Your task to perform on an android device: Search for "asus zenbook" on bestbuy.com, select the first entry, and add it to the cart. Image 0: 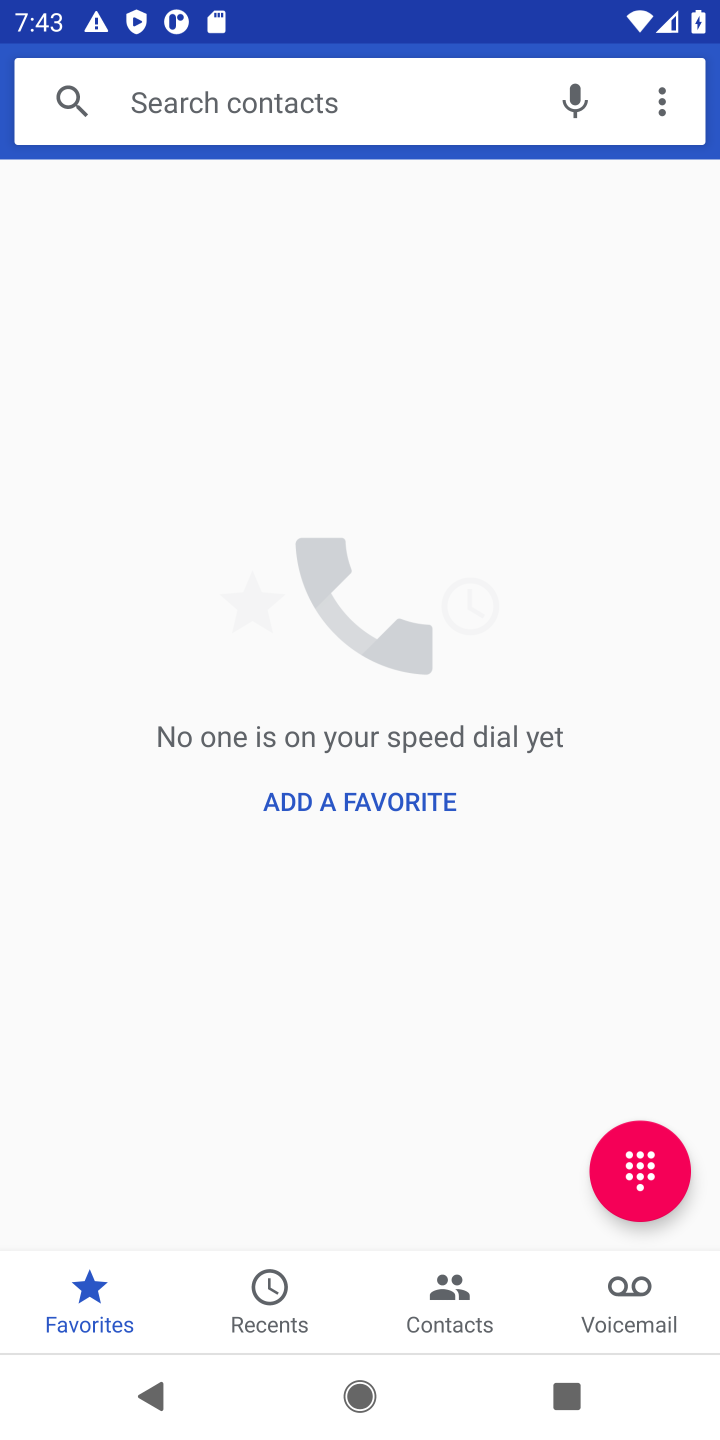
Step 0: press home button
Your task to perform on an android device: Search for "asus zenbook" on bestbuy.com, select the first entry, and add it to the cart. Image 1: 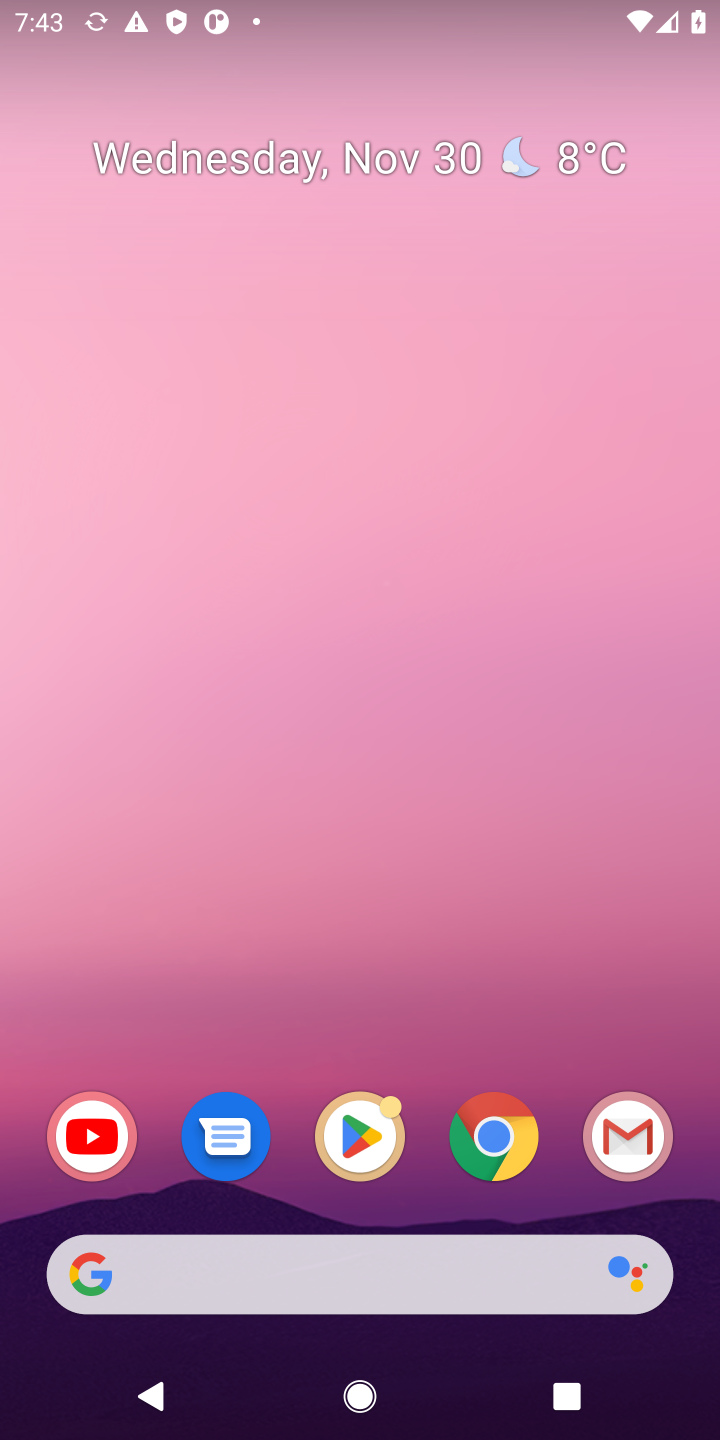
Step 1: click (488, 1144)
Your task to perform on an android device: Search for "asus zenbook" on bestbuy.com, select the first entry, and add it to the cart. Image 2: 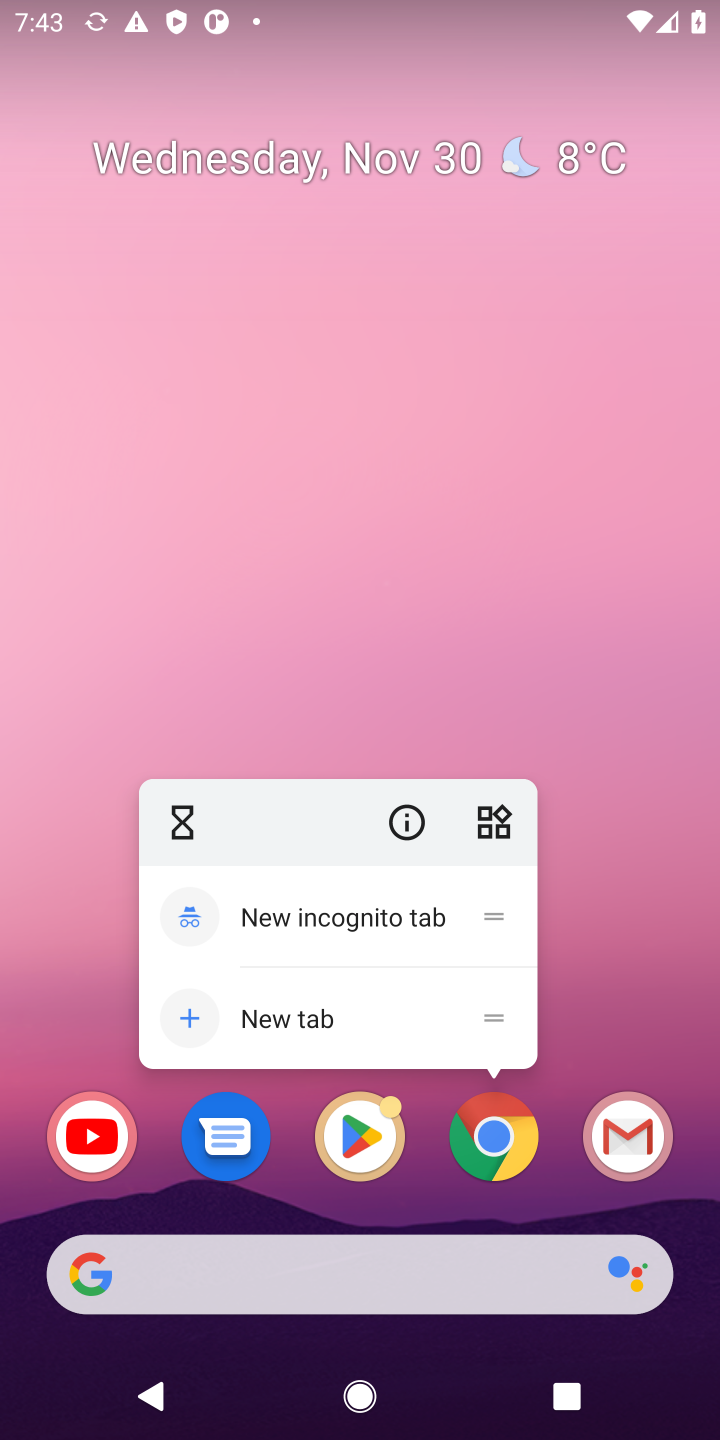
Step 2: click (488, 1144)
Your task to perform on an android device: Search for "asus zenbook" on bestbuy.com, select the first entry, and add it to the cart. Image 3: 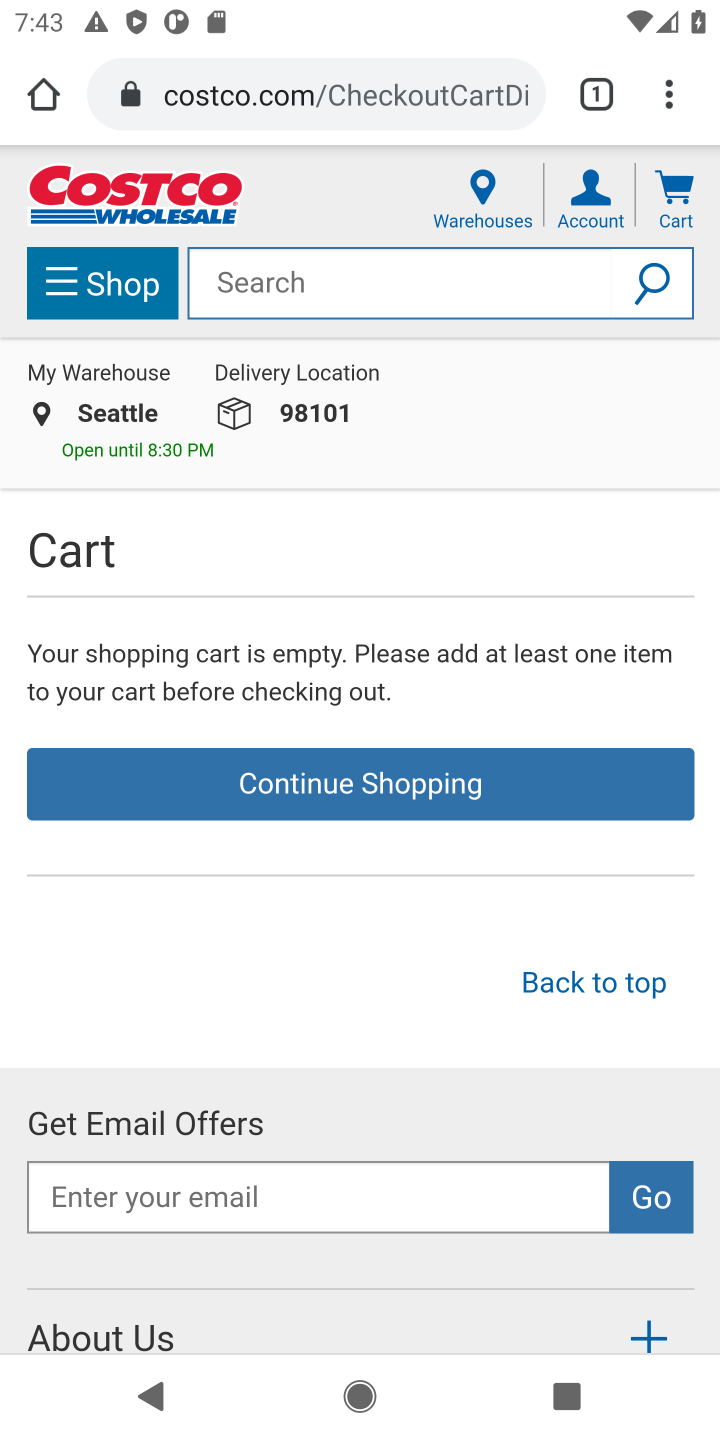
Step 3: click (351, 96)
Your task to perform on an android device: Search for "asus zenbook" on bestbuy.com, select the first entry, and add it to the cart. Image 4: 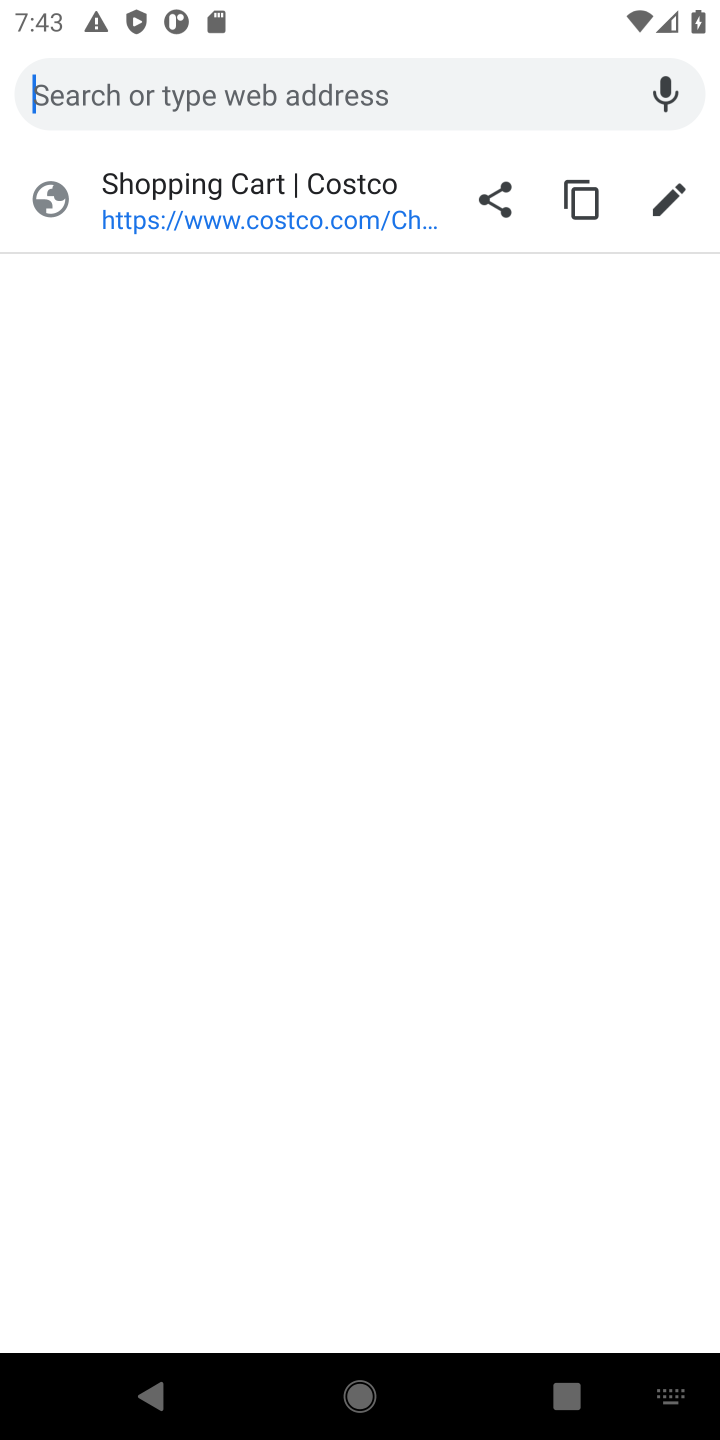
Step 4: type "bestbuy.com"
Your task to perform on an android device: Search for "asus zenbook" on bestbuy.com, select the first entry, and add it to the cart. Image 5: 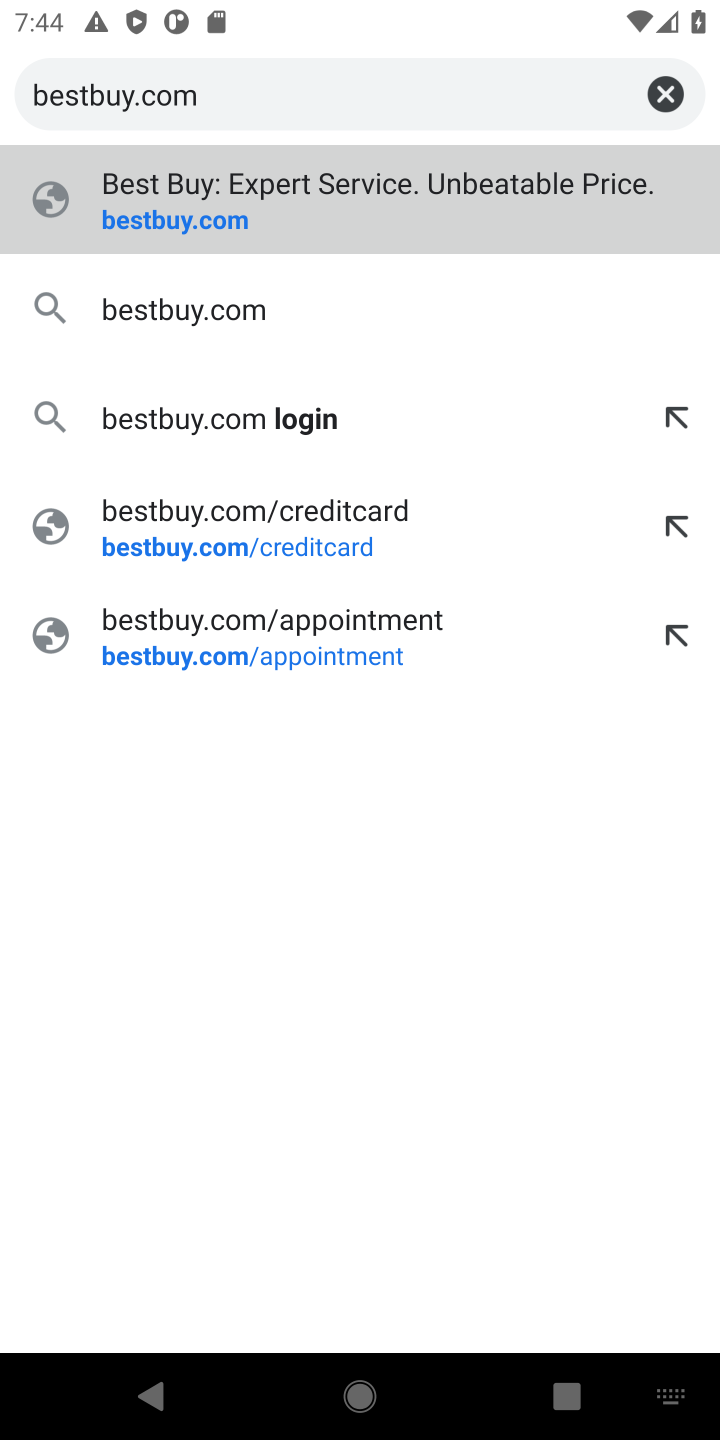
Step 5: click (175, 225)
Your task to perform on an android device: Search for "asus zenbook" on bestbuy.com, select the first entry, and add it to the cart. Image 6: 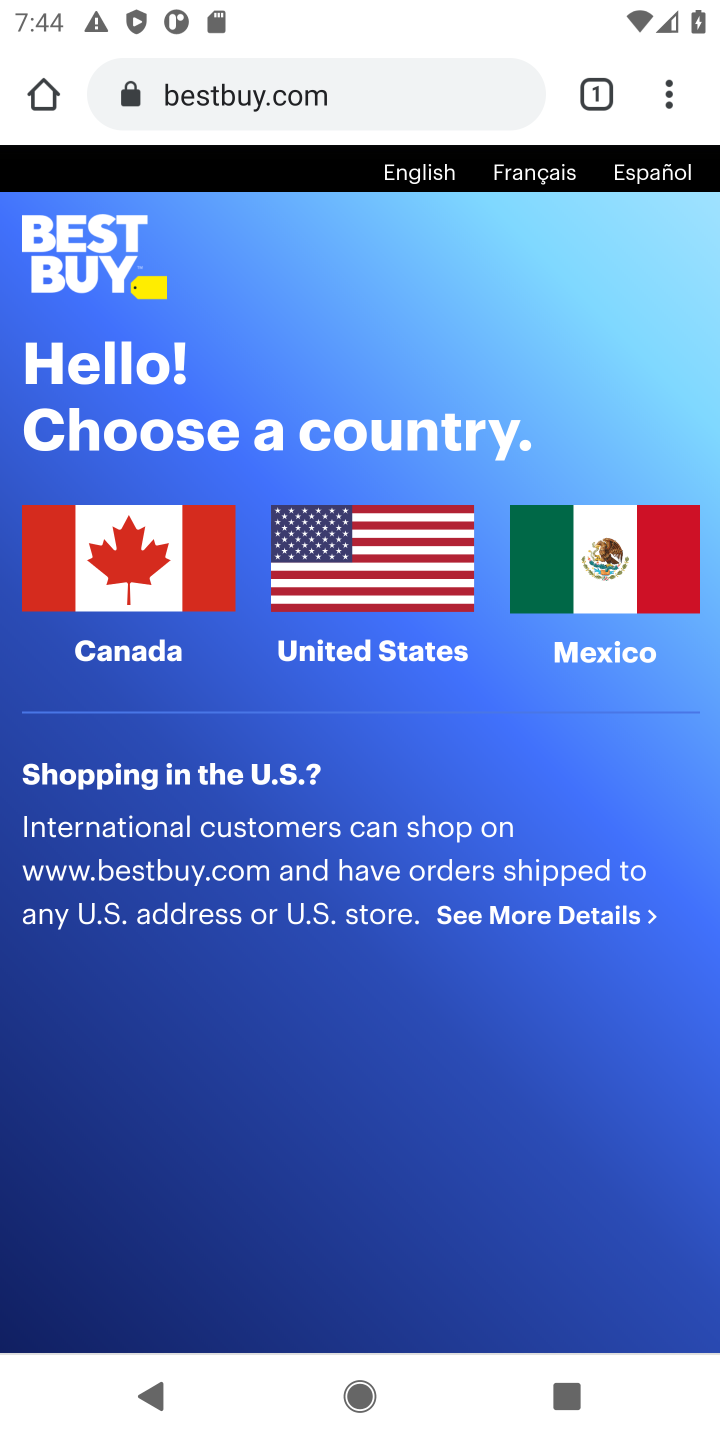
Step 6: click (352, 593)
Your task to perform on an android device: Search for "asus zenbook" on bestbuy.com, select the first entry, and add it to the cart. Image 7: 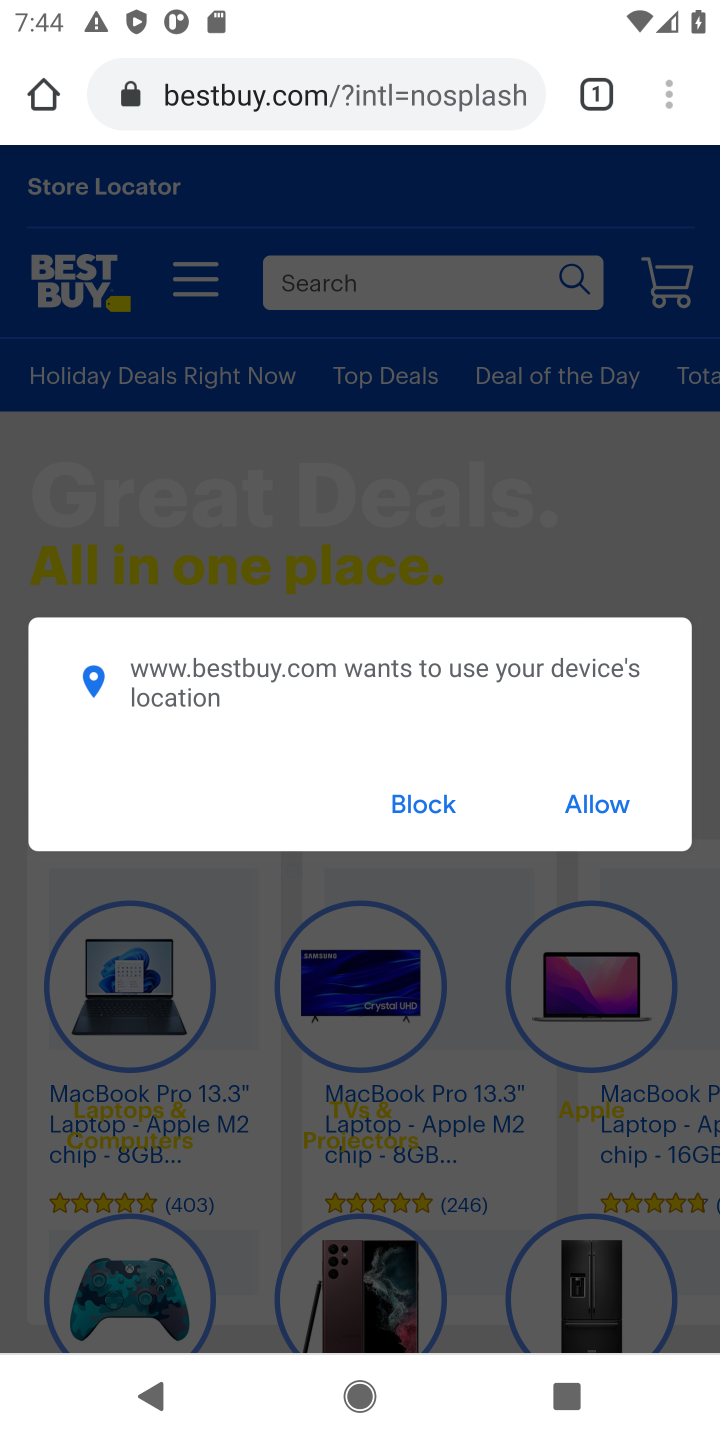
Step 7: click (422, 811)
Your task to perform on an android device: Search for "asus zenbook" on bestbuy.com, select the first entry, and add it to the cart. Image 8: 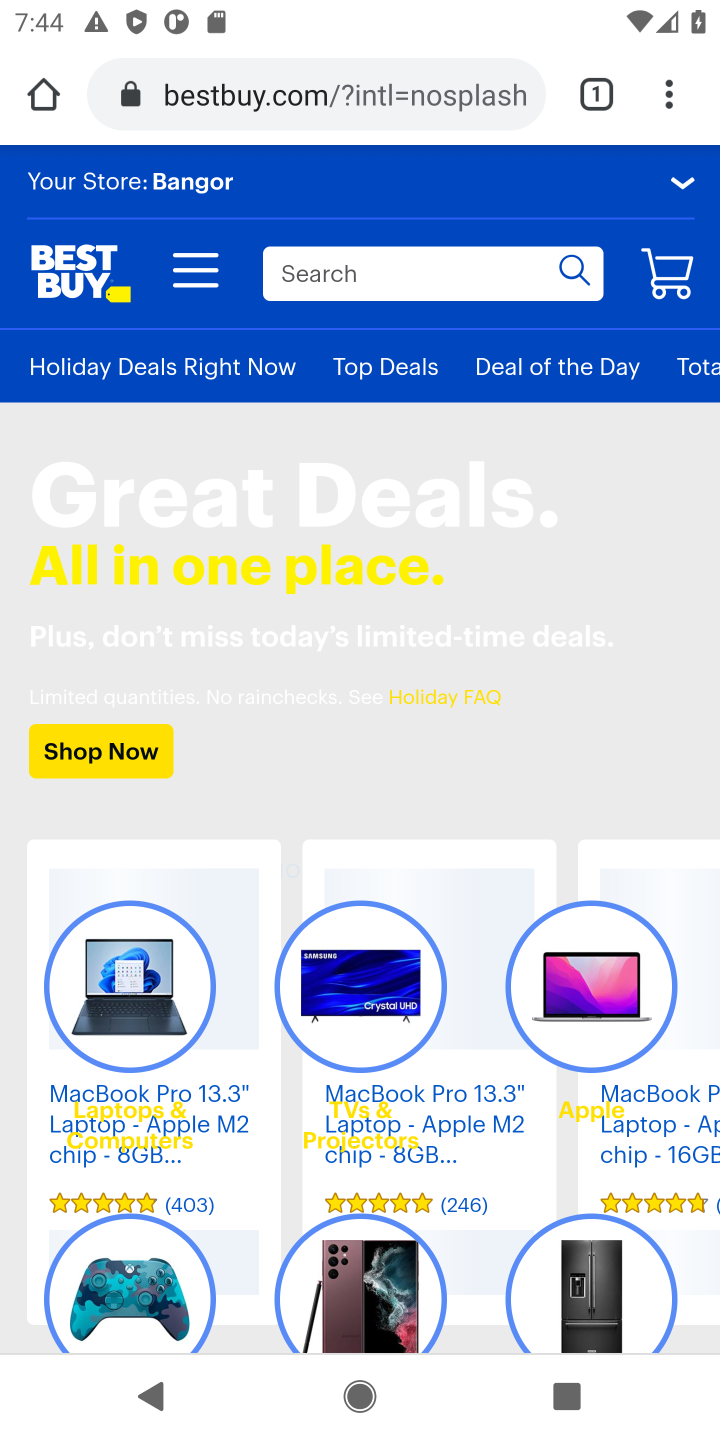
Step 8: click (346, 285)
Your task to perform on an android device: Search for "asus zenbook" on bestbuy.com, select the first entry, and add it to the cart. Image 9: 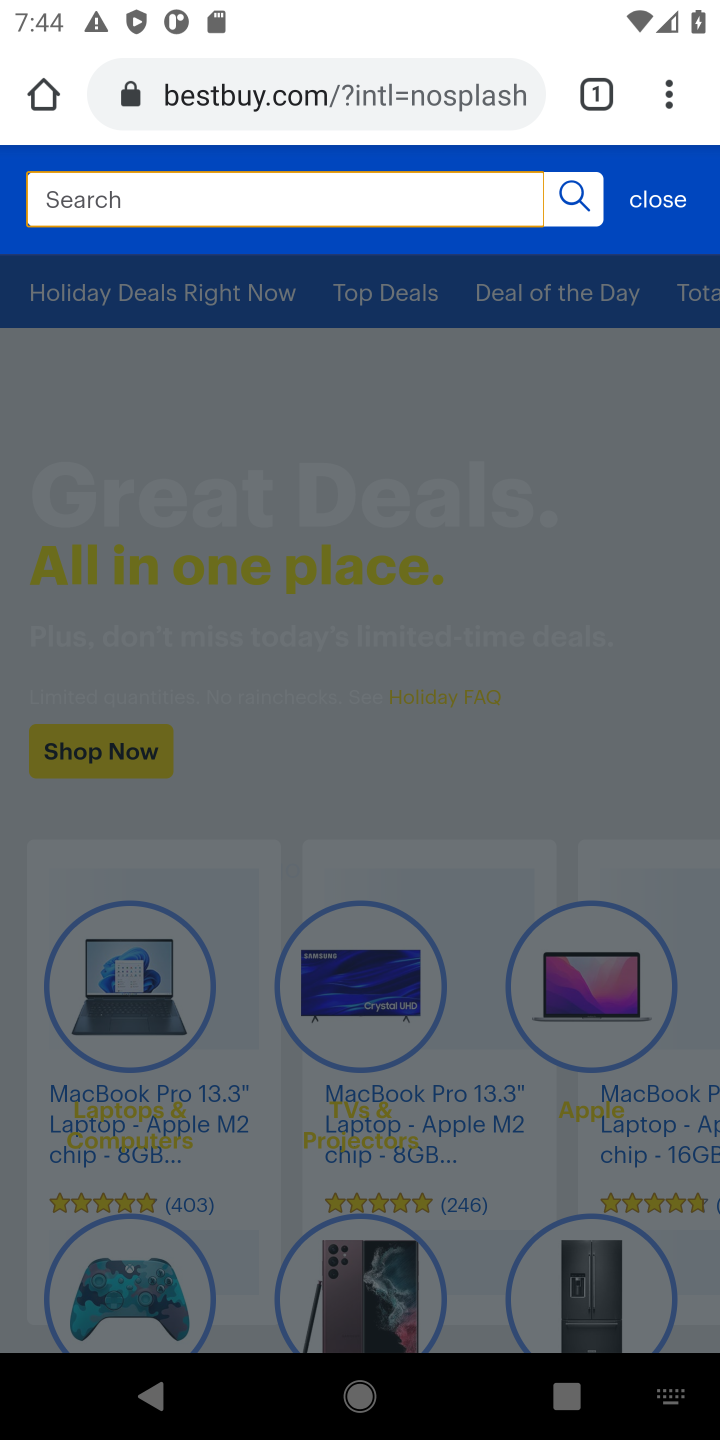
Step 9: type "asus zenbook"
Your task to perform on an android device: Search for "asus zenbook" on bestbuy.com, select the first entry, and add it to the cart. Image 10: 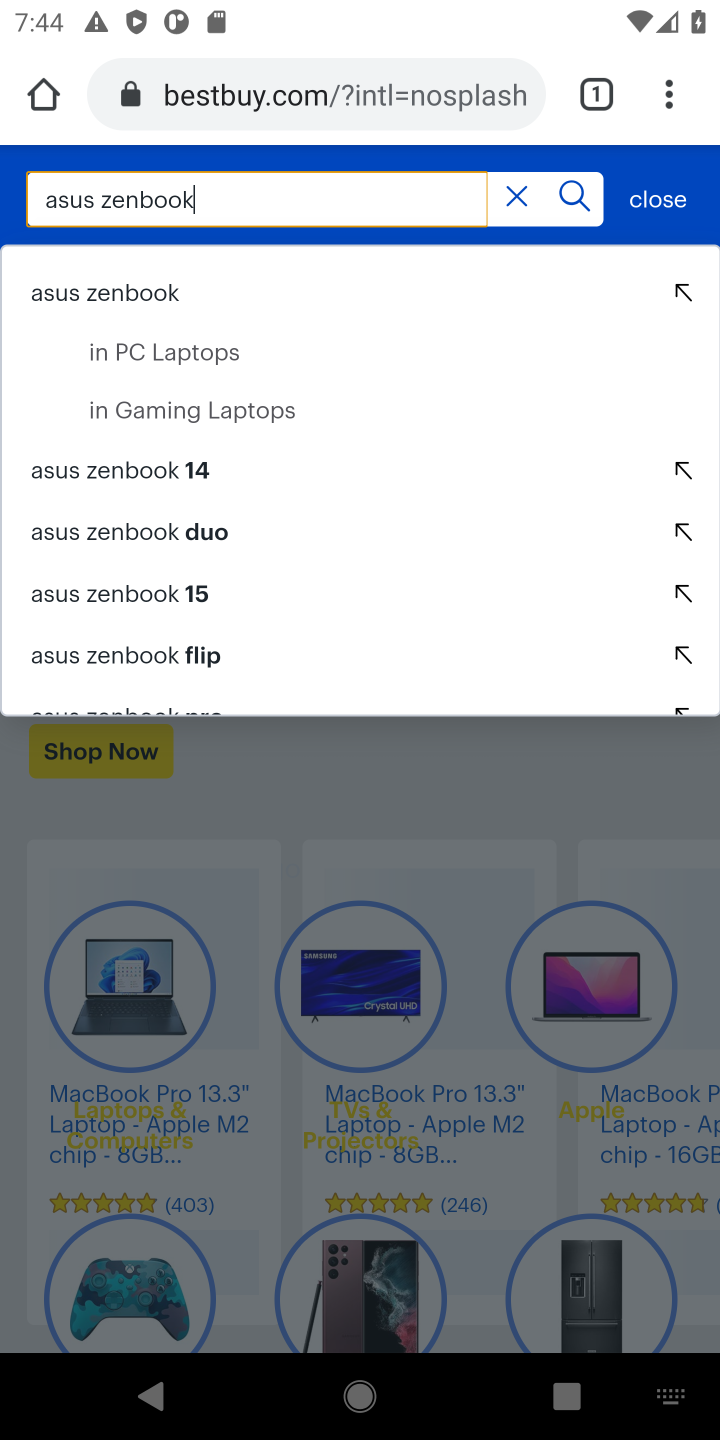
Step 10: click (128, 306)
Your task to perform on an android device: Search for "asus zenbook" on bestbuy.com, select the first entry, and add it to the cart. Image 11: 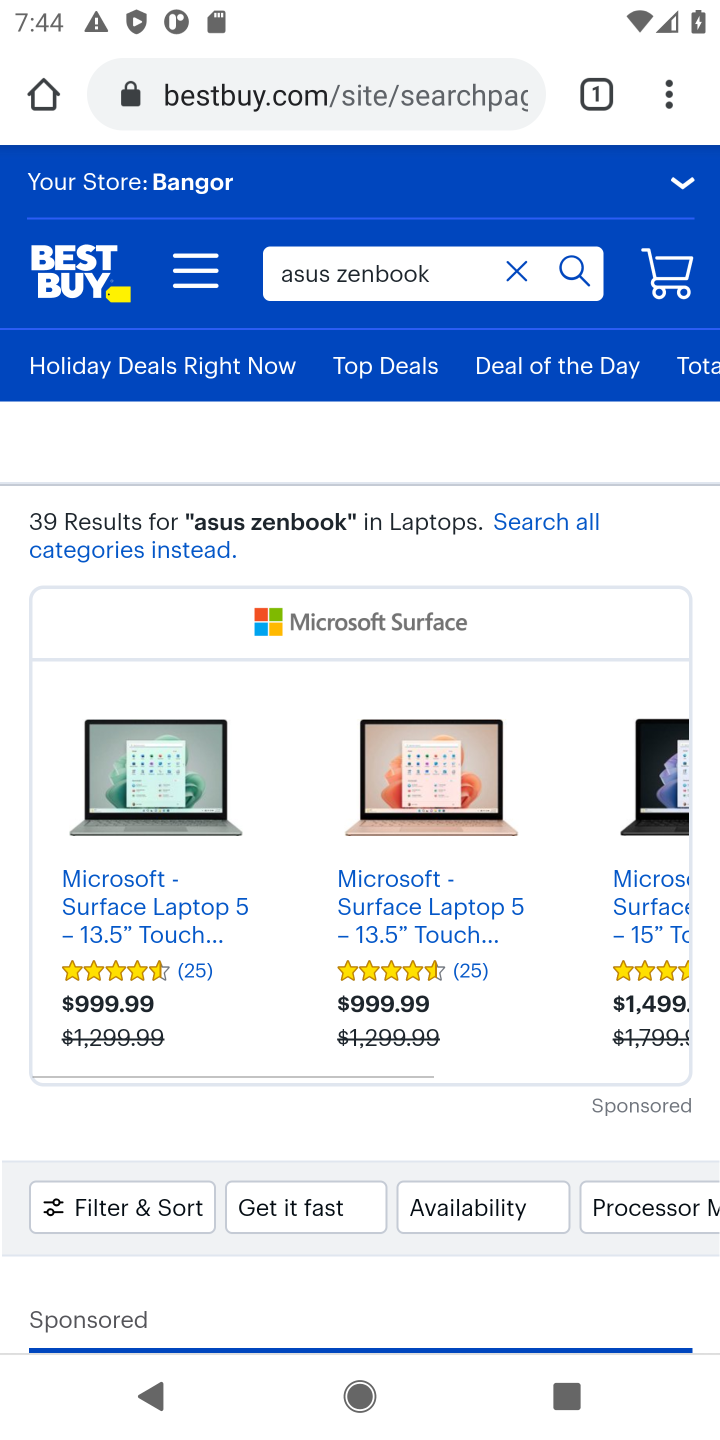
Step 11: drag from (447, 982) to (412, 455)
Your task to perform on an android device: Search for "asus zenbook" on bestbuy.com, select the first entry, and add it to the cart. Image 12: 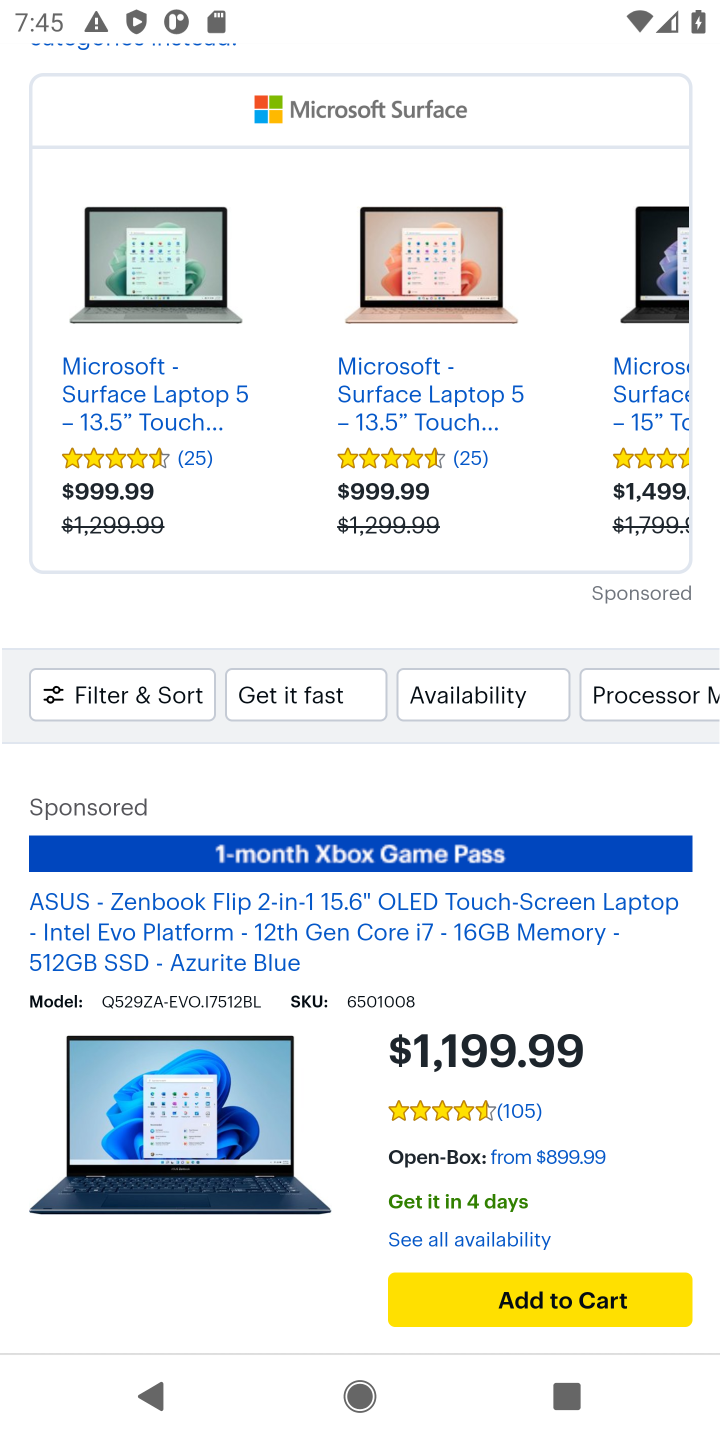
Step 12: drag from (605, 942) to (581, 548)
Your task to perform on an android device: Search for "asus zenbook" on bestbuy.com, select the first entry, and add it to the cart. Image 13: 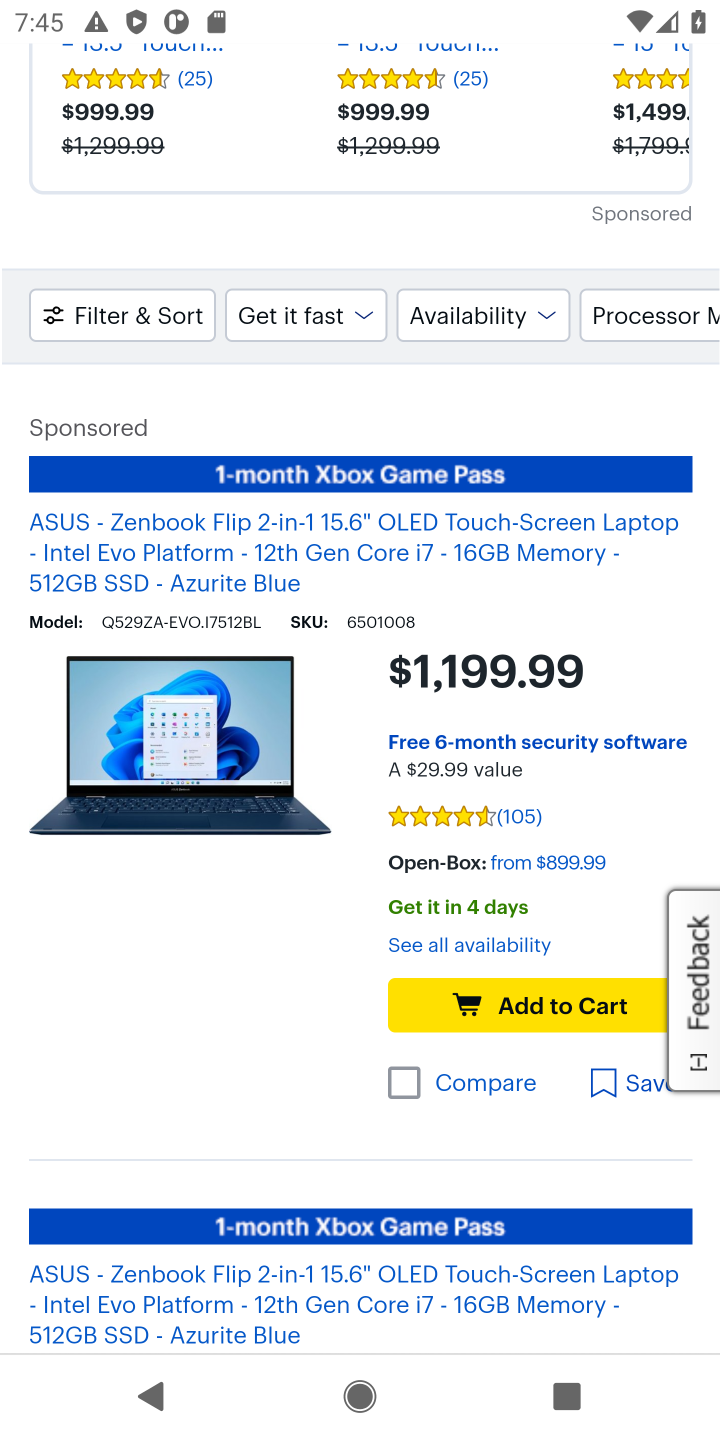
Step 13: click (507, 1002)
Your task to perform on an android device: Search for "asus zenbook" on bestbuy.com, select the first entry, and add it to the cart. Image 14: 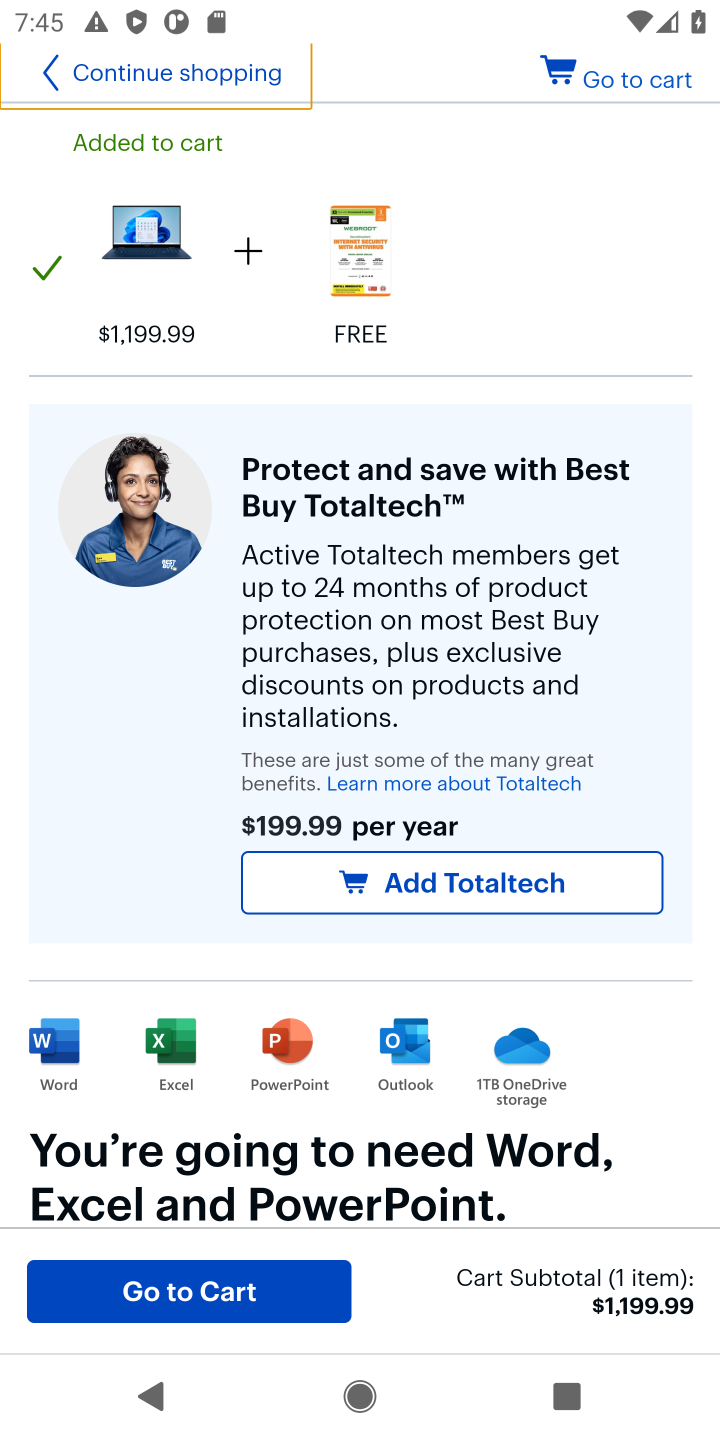
Step 14: task complete